Your task to perform on an android device: search for starred emails in the gmail app Image 0: 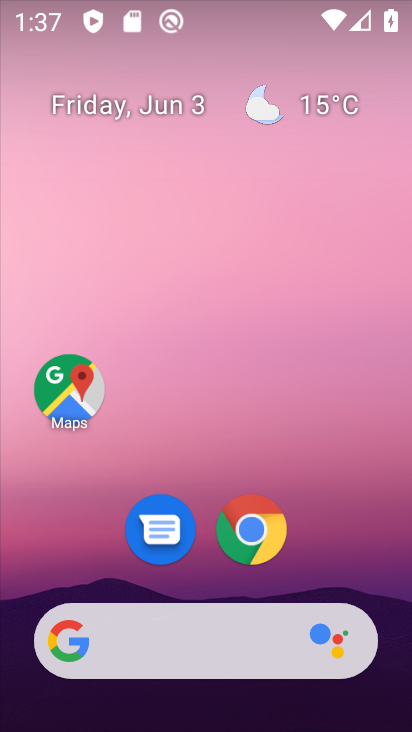
Step 0: drag from (365, 557) to (364, 166)
Your task to perform on an android device: search for starred emails in the gmail app Image 1: 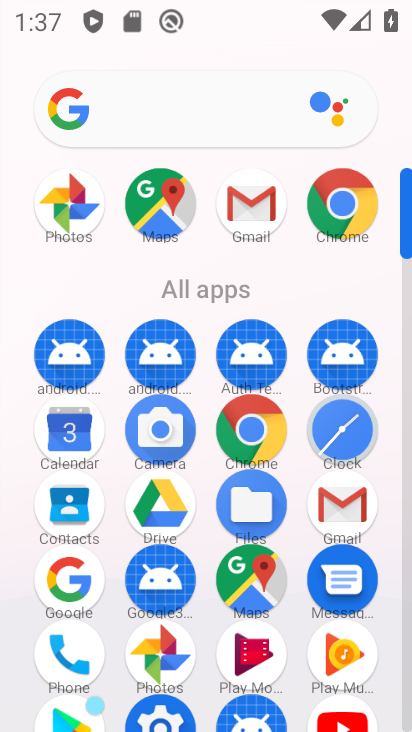
Step 1: click (353, 510)
Your task to perform on an android device: search for starred emails in the gmail app Image 2: 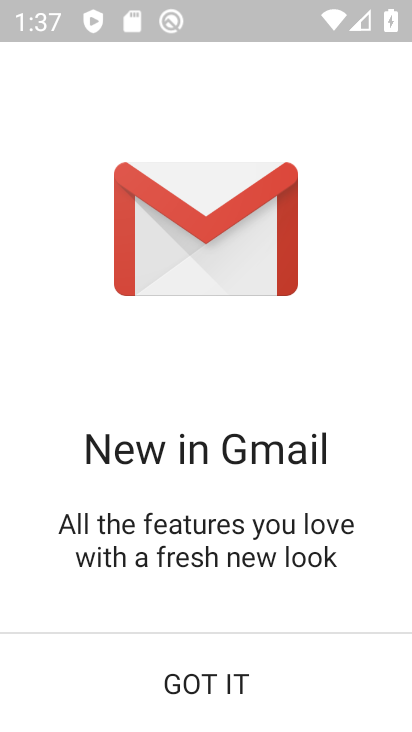
Step 2: click (202, 682)
Your task to perform on an android device: search for starred emails in the gmail app Image 3: 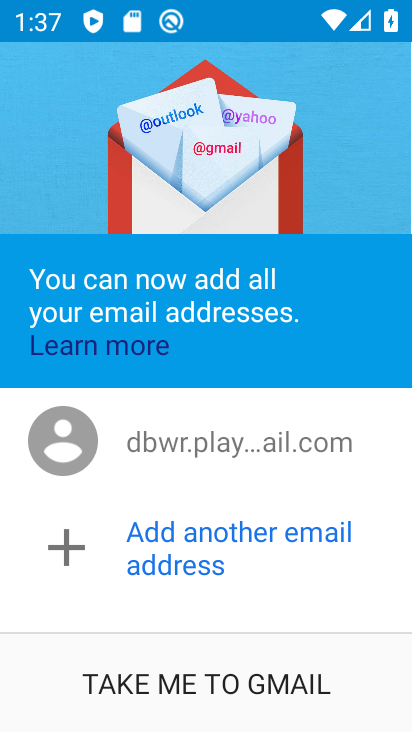
Step 3: click (202, 682)
Your task to perform on an android device: search for starred emails in the gmail app Image 4: 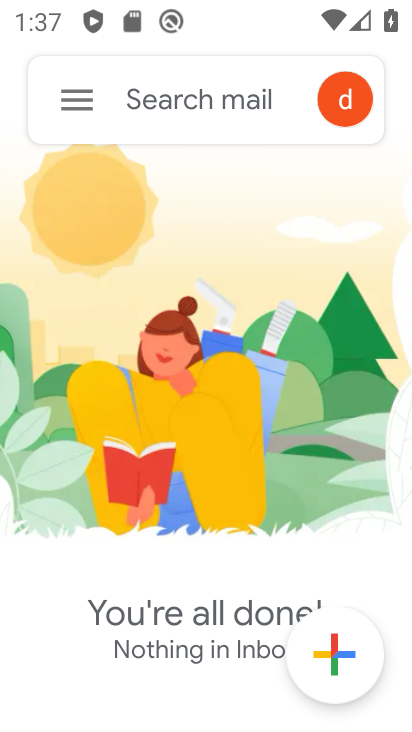
Step 4: click (81, 111)
Your task to perform on an android device: search for starred emails in the gmail app Image 5: 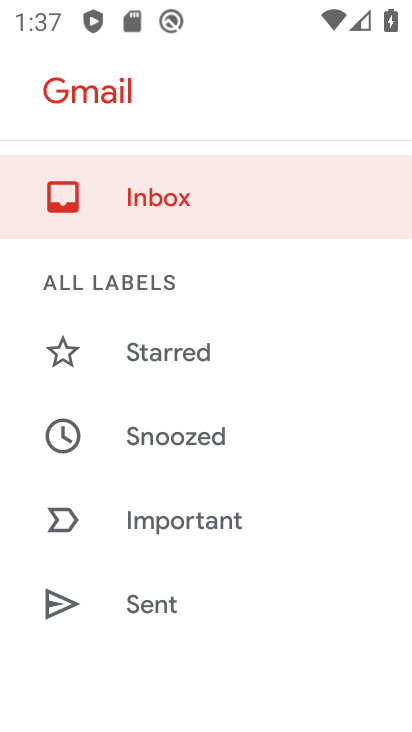
Step 5: drag from (311, 467) to (330, 315)
Your task to perform on an android device: search for starred emails in the gmail app Image 6: 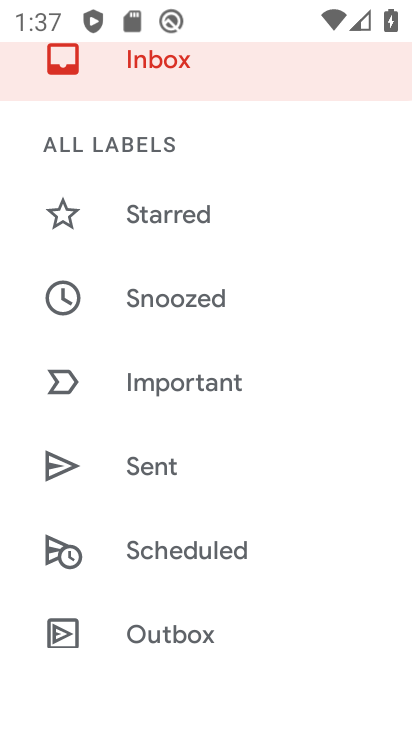
Step 6: drag from (336, 503) to (334, 355)
Your task to perform on an android device: search for starred emails in the gmail app Image 7: 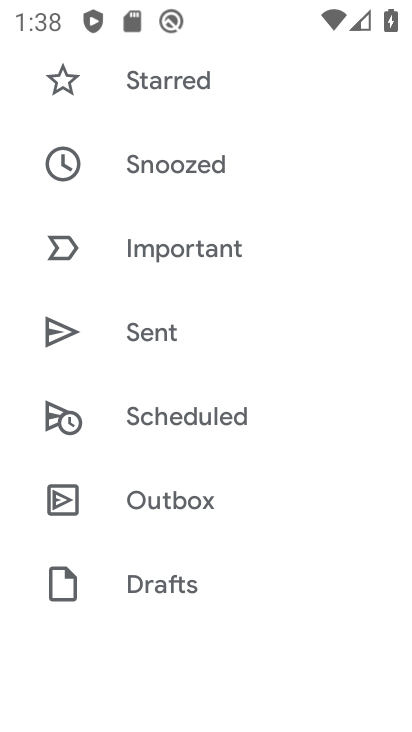
Step 7: drag from (319, 530) to (322, 402)
Your task to perform on an android device: search for starred emails in the gmail app Image 8: 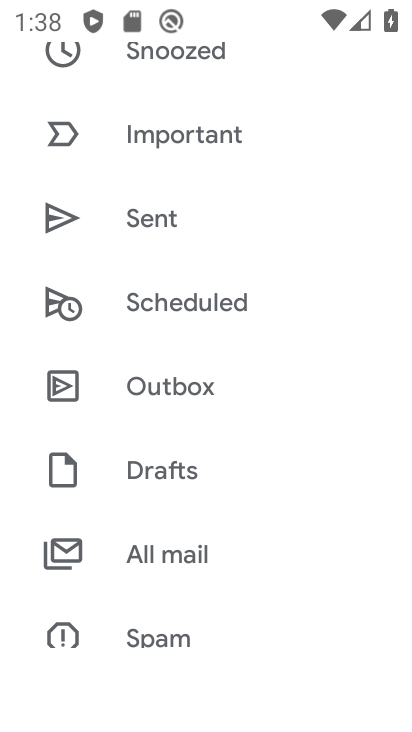
Step 8: drag from (320, 502) to (315, 364)
Your task to perform on an android device: search for starred emails in the gmail app Image 9: 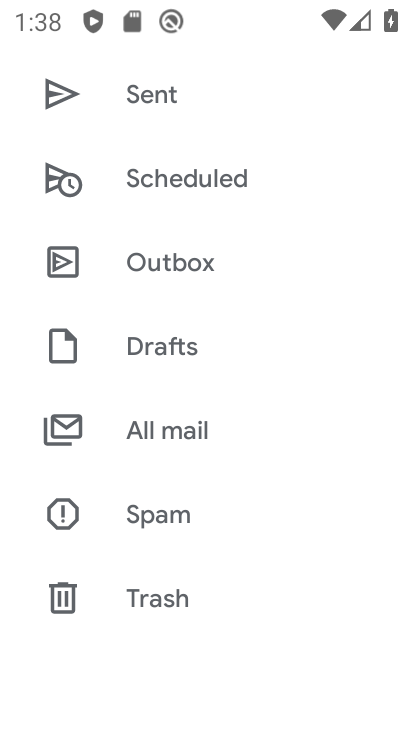
Step 9: drag from (329, 517) to (320, 313)
Your task to perform on an android device: search for starred emails in the gmail app Image 10: 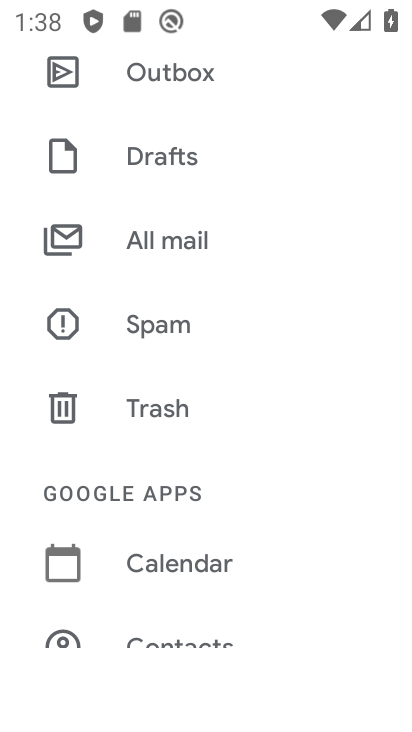
Step 10: drag from (340, 517) to (325, 251)
Your task to perform on an android device: search for starred emails in the gmail app Image 11: 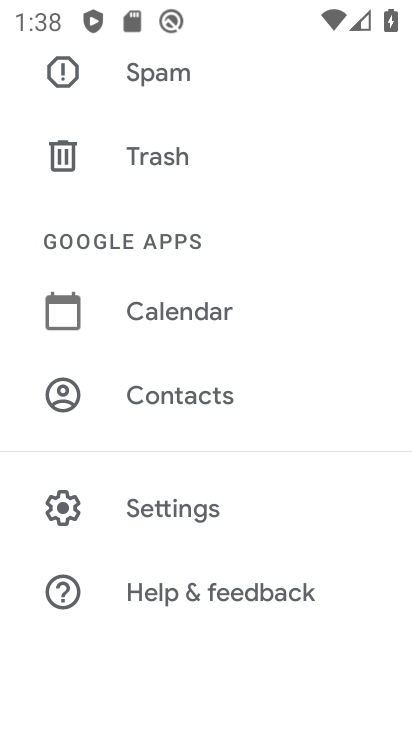
Step 11: drag from (335, 199) to (319, 350)
Your task to perform on an android device: search for starred emails in the gmail app Image 12: 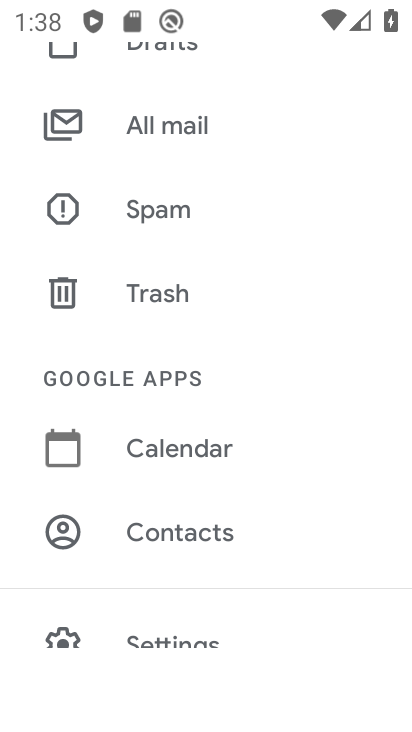
Step 12: drag from (333, 223) to (317, 373)
Your task to perform on an android device: search for starred emails in the gmail app Image 13: 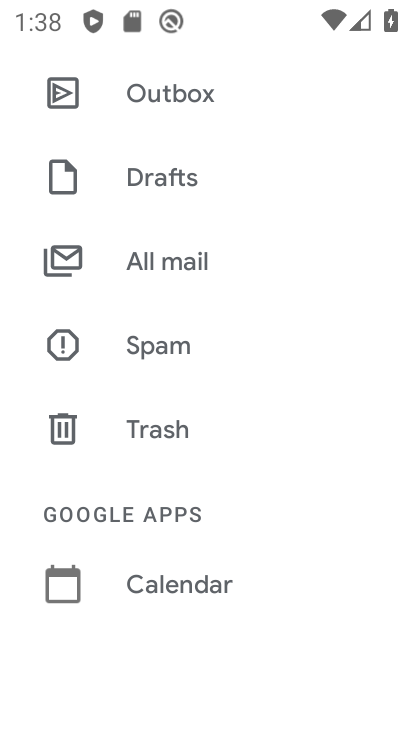
Step 13: drag from (336, 195) to (329, 439)
Your task to perform on an android device: search for starred emails in the gmail app Image 14: 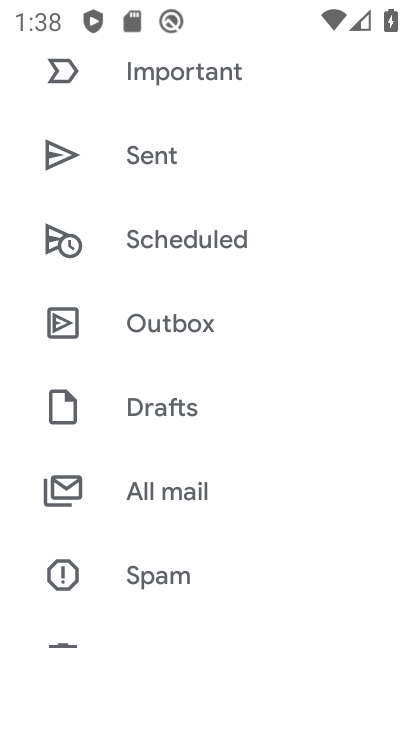
Step 14: drag from (320, 258) to (313, 447)
Your task to perform on an android device: search for starred emails in the gmail app Image 15: 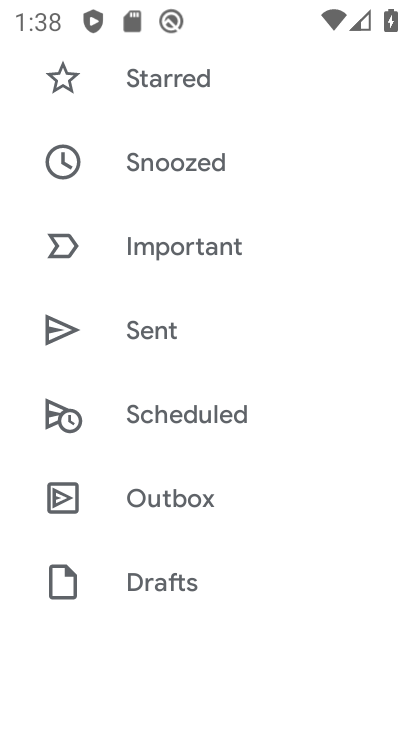
Step 15: drag from (321, 154) to (330, 376)
Your task to perform on an android device: search for starred emails in the gmail app Image 16: 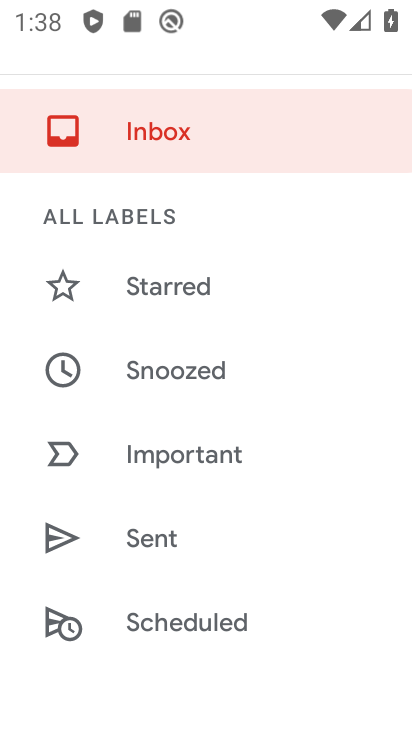
Step 16: click (199, 269)
Your task to perform on an android device: search for starred emails in the gmail app Image 17: 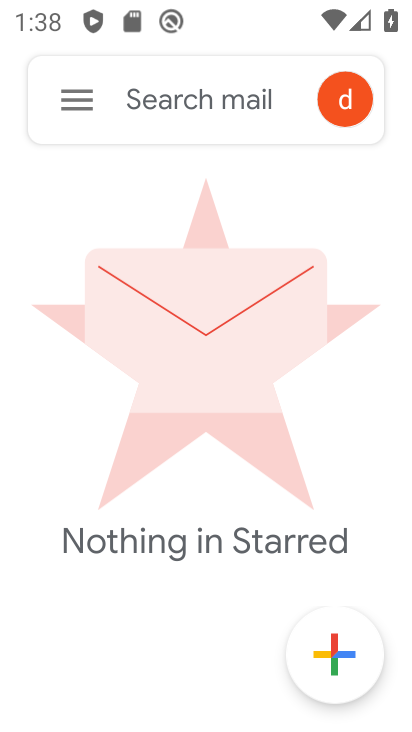
Step 17: task complete